Your task to perform on an android device: remove spam from my inbox in the gmail app Image 0: 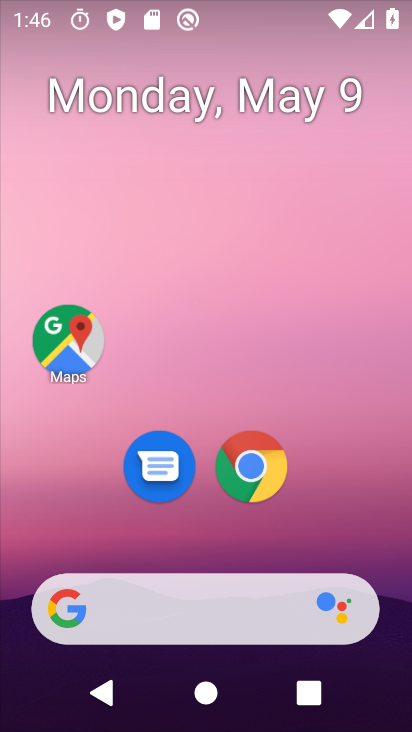
Step 0: drag from (169, 543) to (188, 214)
Your task to perform on an android device: remove spam from my inbox in the gmail app Image 1: 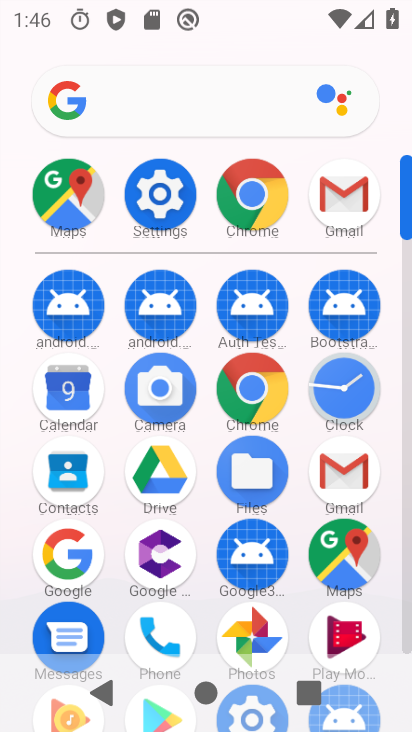
Step 1: click (354, 465)
Your task to perform on an android device: remove spam from my inbox in the gmail app Image 2: 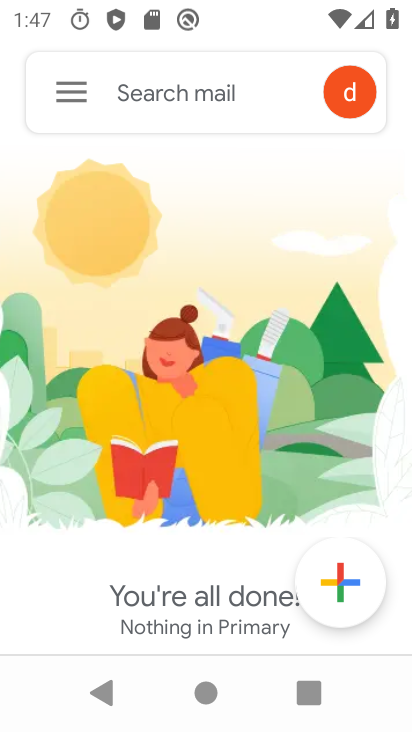
Step 2: click (71, 87)
Your task to perform on an android device: remove spam from my inbox in the gmail app Image 3: 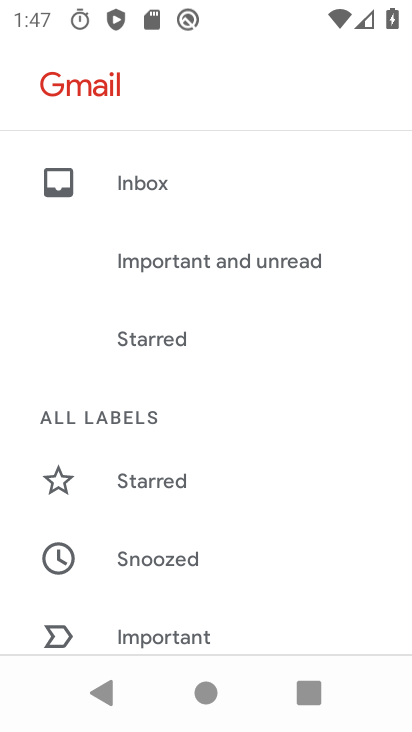
Step 3: drag from (196, 506) to (211, 267)
Your task to perform on an android device: remove spam from my inbox in the gmail app Image 4: 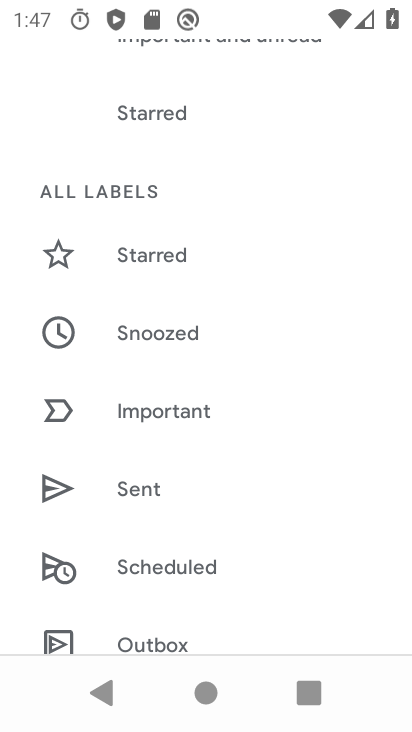
Step 4: drag from (219, 574) to (222, 365)
Your task to perform on an android device: remove spam from my inbox in the gmail app Image 5: 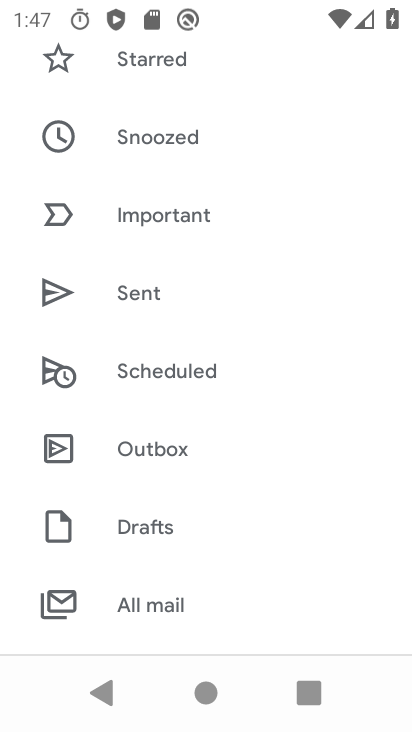
Step 5: drag from (175, 570) to (189, 380)
Your task to perform on an android device: remove spam from my inbox in the gmail app Image 6: 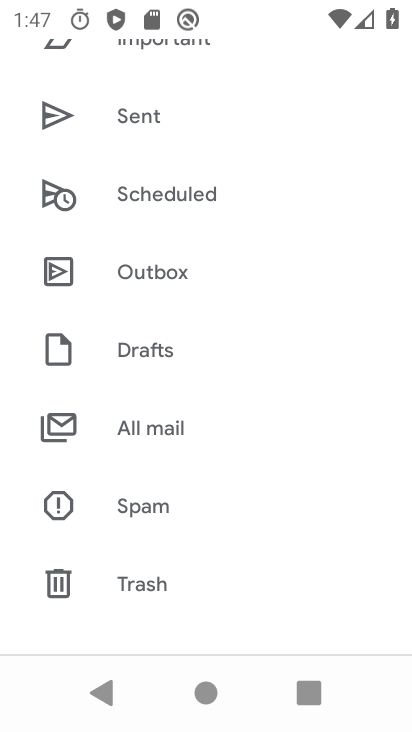
Step 6: click (158, 511)
Your task to perform on an android device: remove spam from my inbox in the gmail app Image 7: 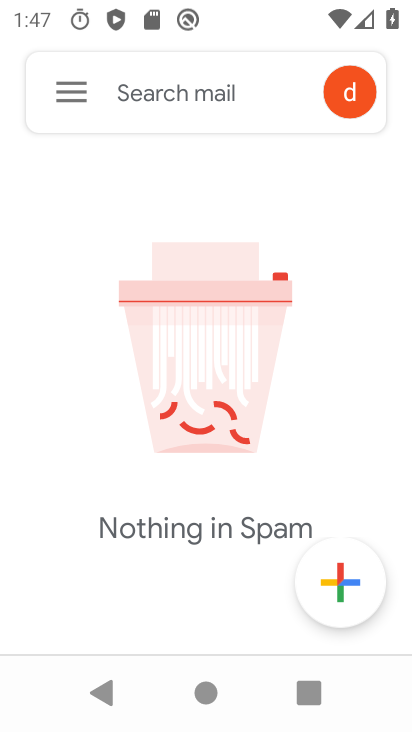
Step 7: task complete